Your task to perform on an android device: Open display settings Image 0: 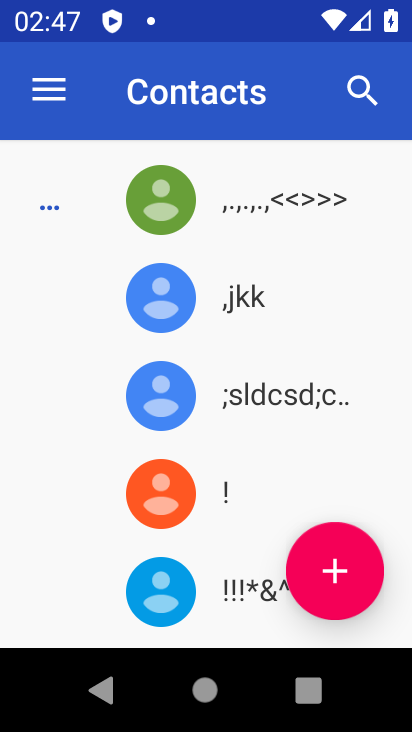
Step 0: press home button
Your task to perform on an android device: Open display settings Image 1: 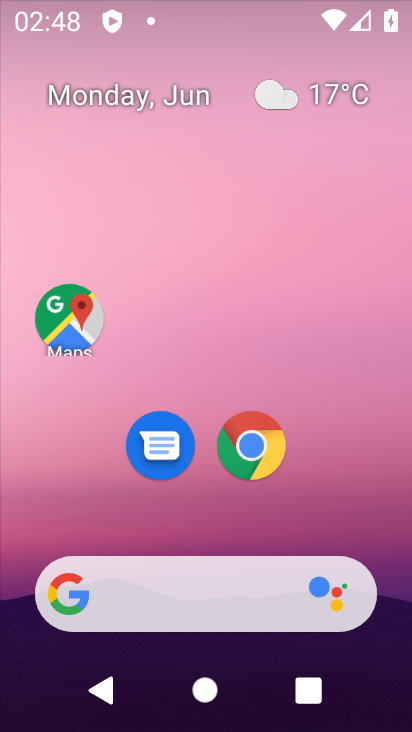
Step 1: drag from (128, 586) to (240, 126)
Your task to perform on an android device: Open display settings Image 2: 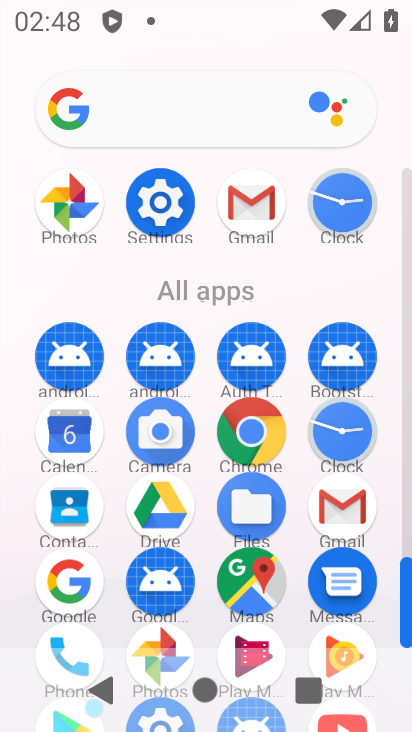
Step 2: drag from (142, 584) to (262, 222)
Your task to perform on an android device: Open display settings Image 3: 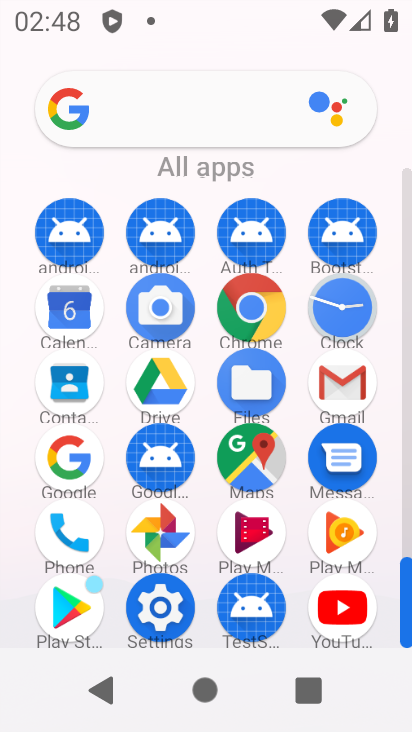
Step 3: click (150, 633)
Your task to perform on an android device: Open display settings Image 4: 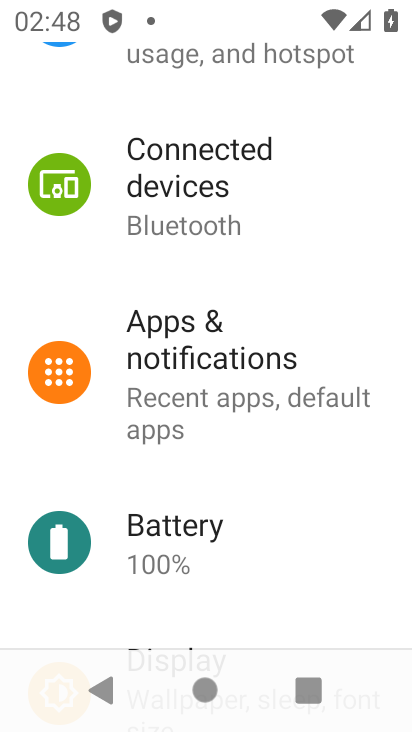
Step 4: drag from (139, 629) to (237, 350)
Your task to perform on an android device: Open display settings Image 5: 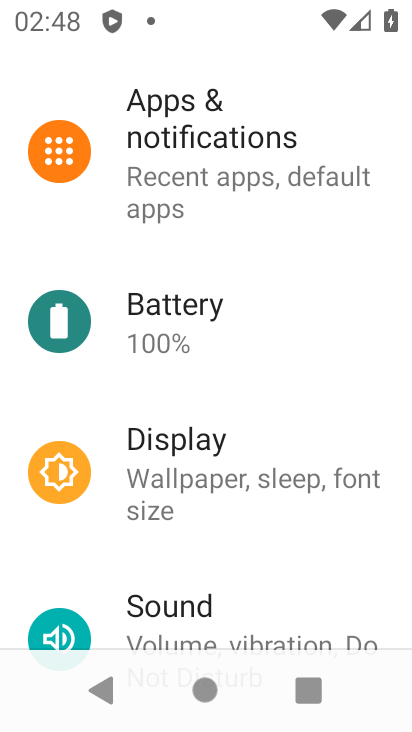
Step 5: click (247, 485)
Your task to perform on an android device: Open display settings Image 6: 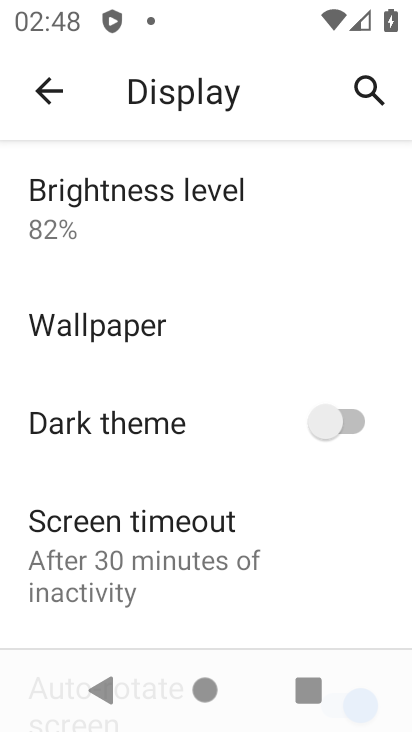
Step 6: task complete